Your task to perform on an android device: toggle sleep mode Image 0: 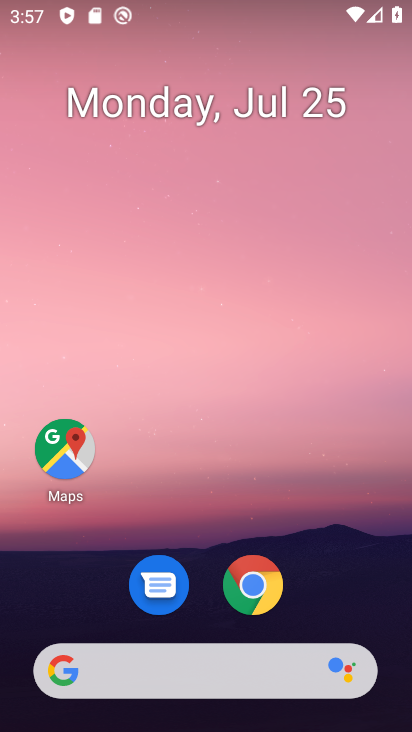
Step 0: drag from (325, 547) to (321, 20)
Your task to perform on an android device: toggle sleep mode Image 1: 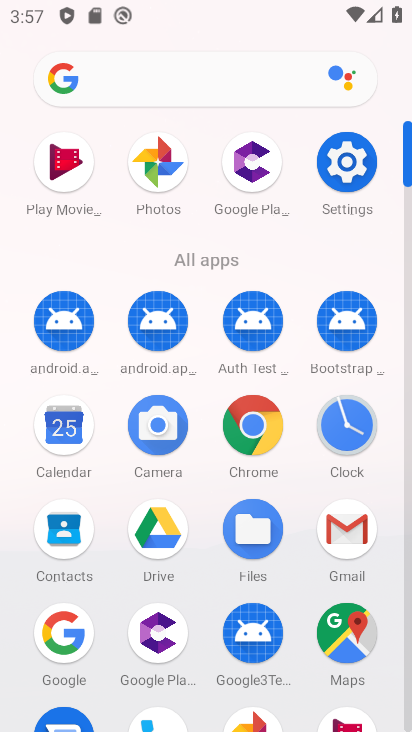
Step 1: click (352, 166)
Your task to perform on an android device: toggle sleep mode Image 2: 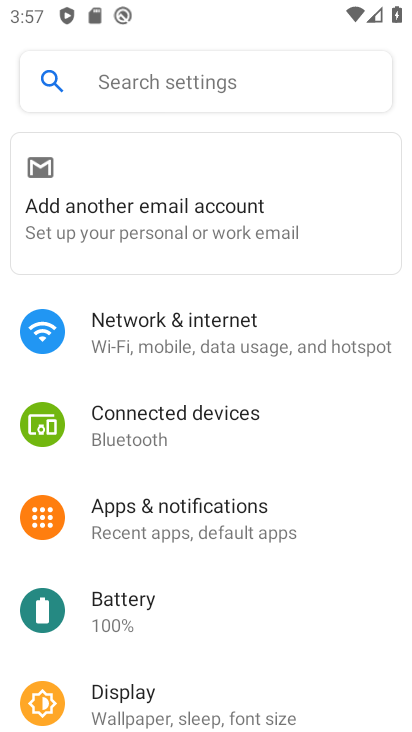
Step 2: drag from (216, 581) to (268, 229)
Your task to perform on an android device: toggle sleep mode Image 3: 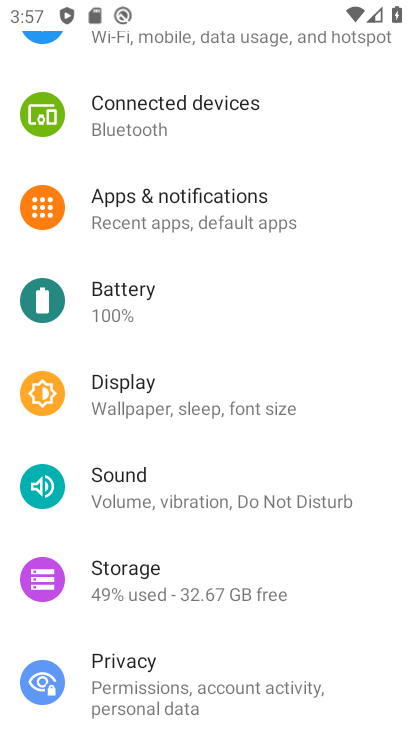
Step 3: click (202, 382)
Your task to perform on an android device: toggle sleep mode Image 4: 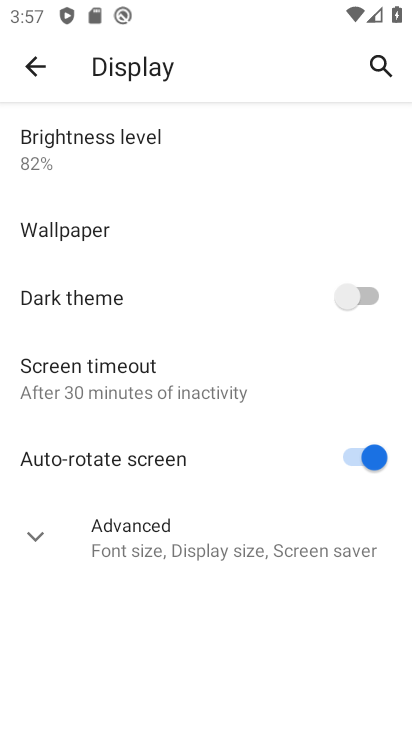
Step 4: click (37, 537)
Your task to perform on an android device: toggle sleep mode Image 5: 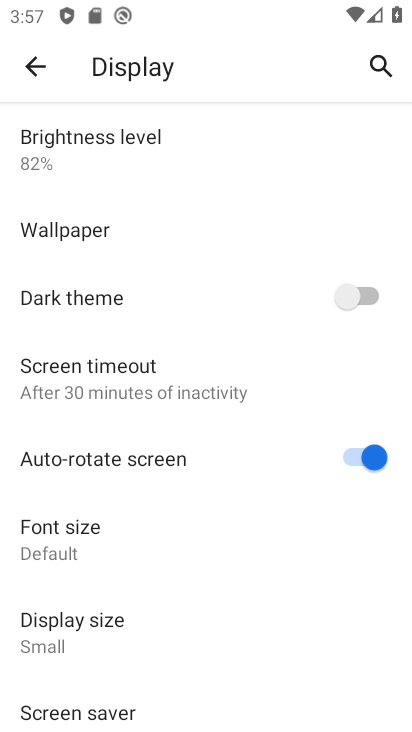
Step 5: task complete